Your task to perform on an android device: change notification settings in the gmail app Image 0: 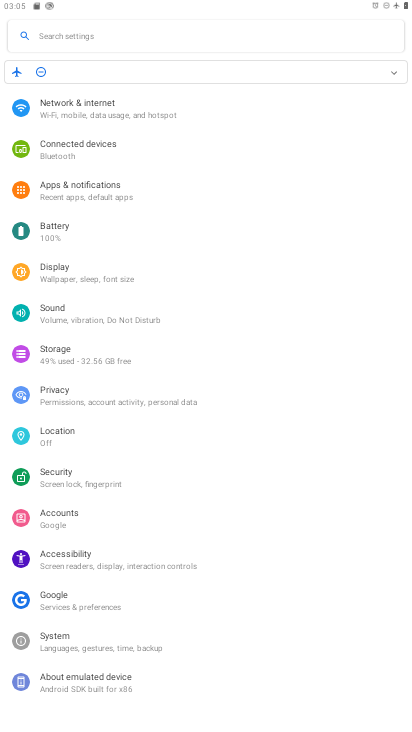
Step 0: press home button
Your task to perform on an android device: change notification settings in the gmail app Image 1: 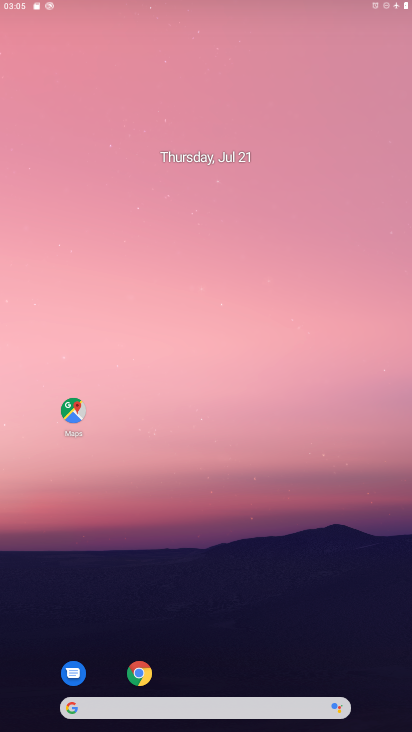
Step 1: drag from (190, 620) to (197, 310)
Your task to perform on an android device: change notification settings in the gmail app Image 2: 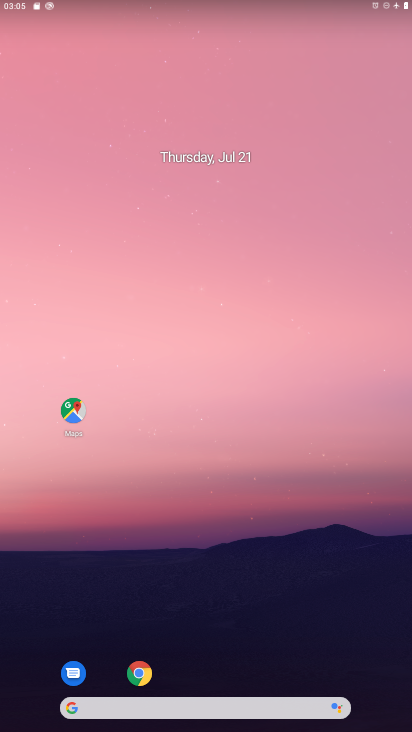
Step 2: drag from (233, 647) to (244, 522)
Your task to perform on an android device: change notification settings in the gmail app Image 3: 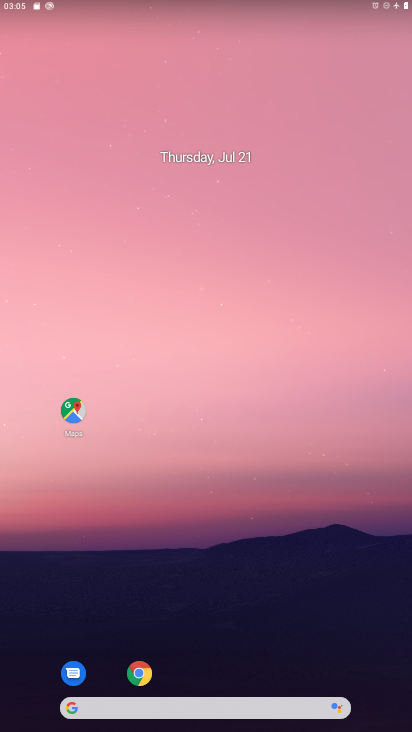
Step 3: drag from (268, 683) to (258, 296)
Your task to perform on an android device: change notification settings in the gmail app Image 4: 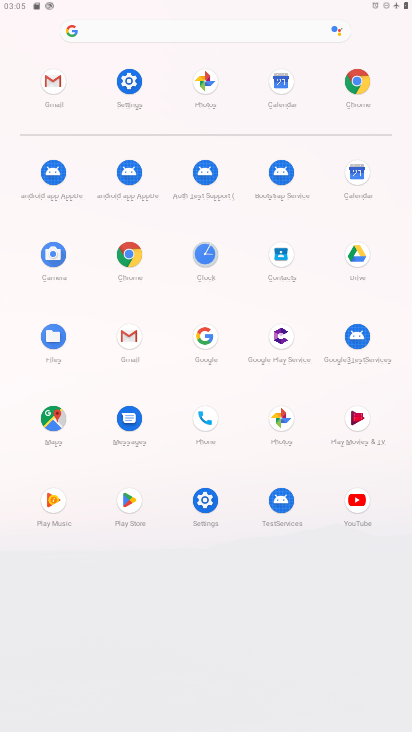
Step 4: click (132, 326)
Your task to perform on an android device: change notification settings in the gmail app Image 5: 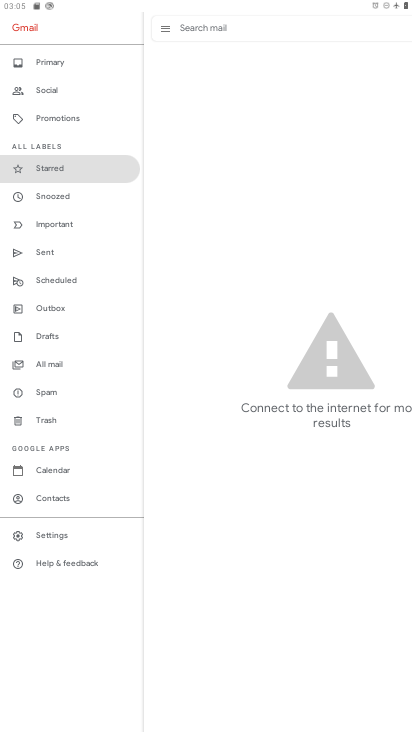
Step 5: click (64, 535)
Your task to perform on an android device: change notification settings in the gmail app Image 6: 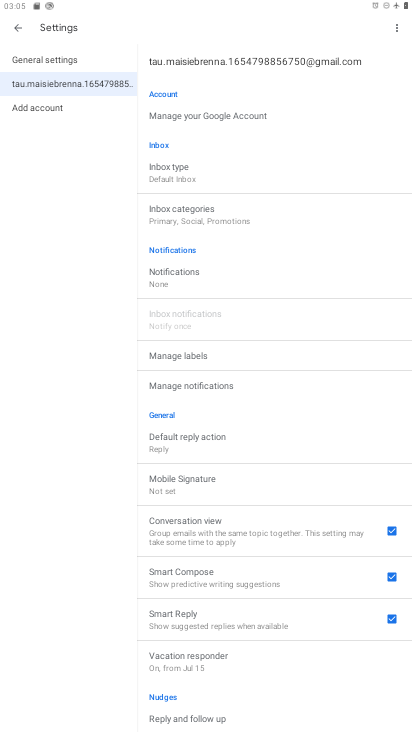
Step 6: click (194, 267)
Your task to perform on an android device: change notification settings in the gmail app Image 7: 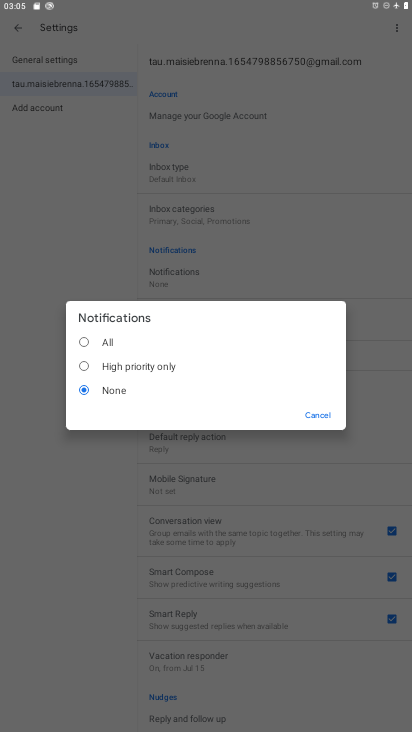
Step 7: click (112, 342)
Your task to perform on an android device: change notification settings in the gmail app Image 8: 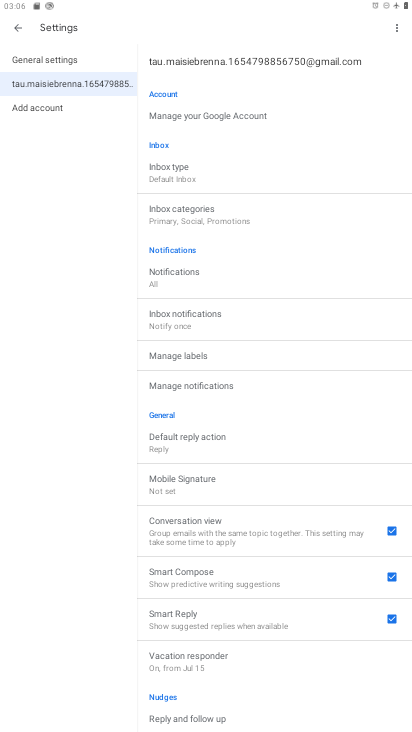
Step 8: task complete